Your task to perform on an android device: turn pop-ups off in chrome Image 0: 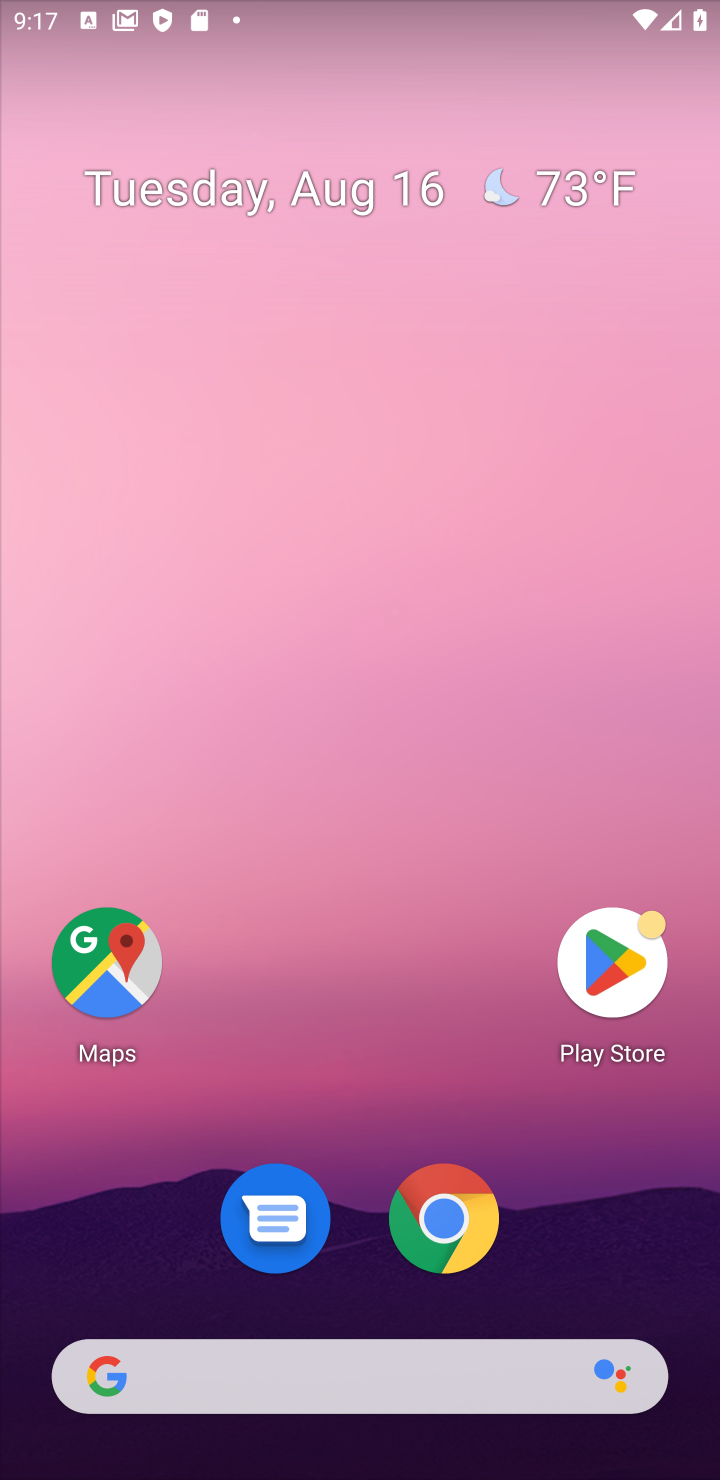
Step 0: click (442, 1224)
Your task to perform on an android device: turn pop-ups off in chrome Image 1: 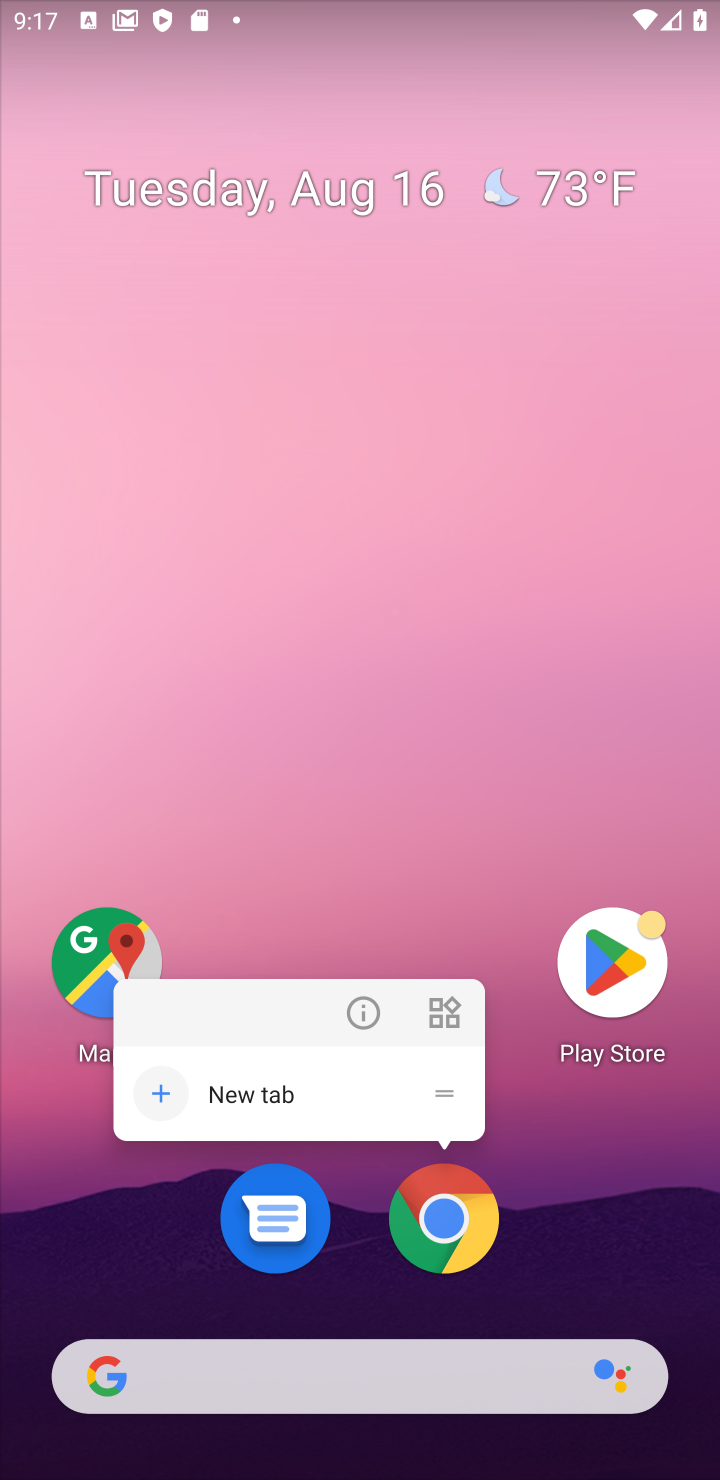
Step 1: click (442, 1224)
Your task to perform on an android device: turn pop-ups off in chrome Image 2: 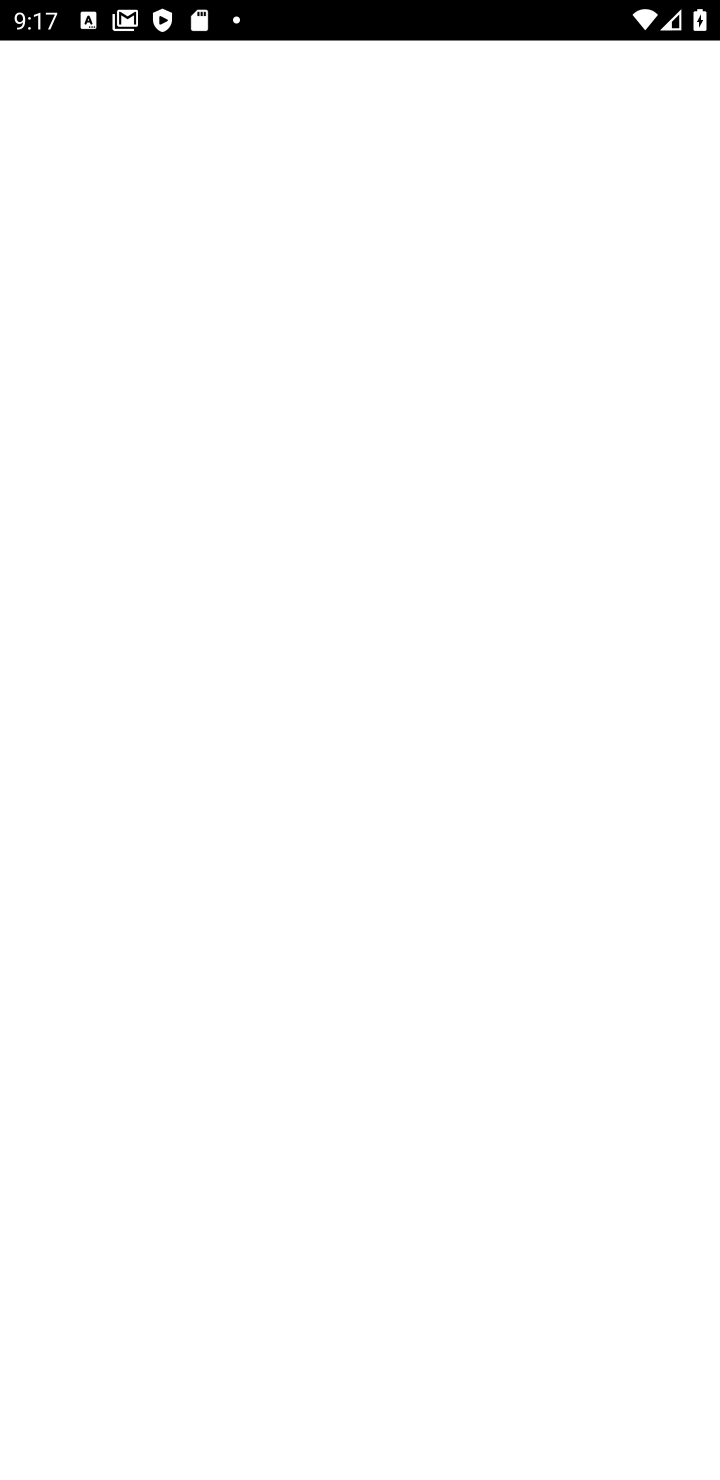
Step 2: click (442, 1224)
Your task to perform on an android device: turn pop-ups off in chrome Image 3: 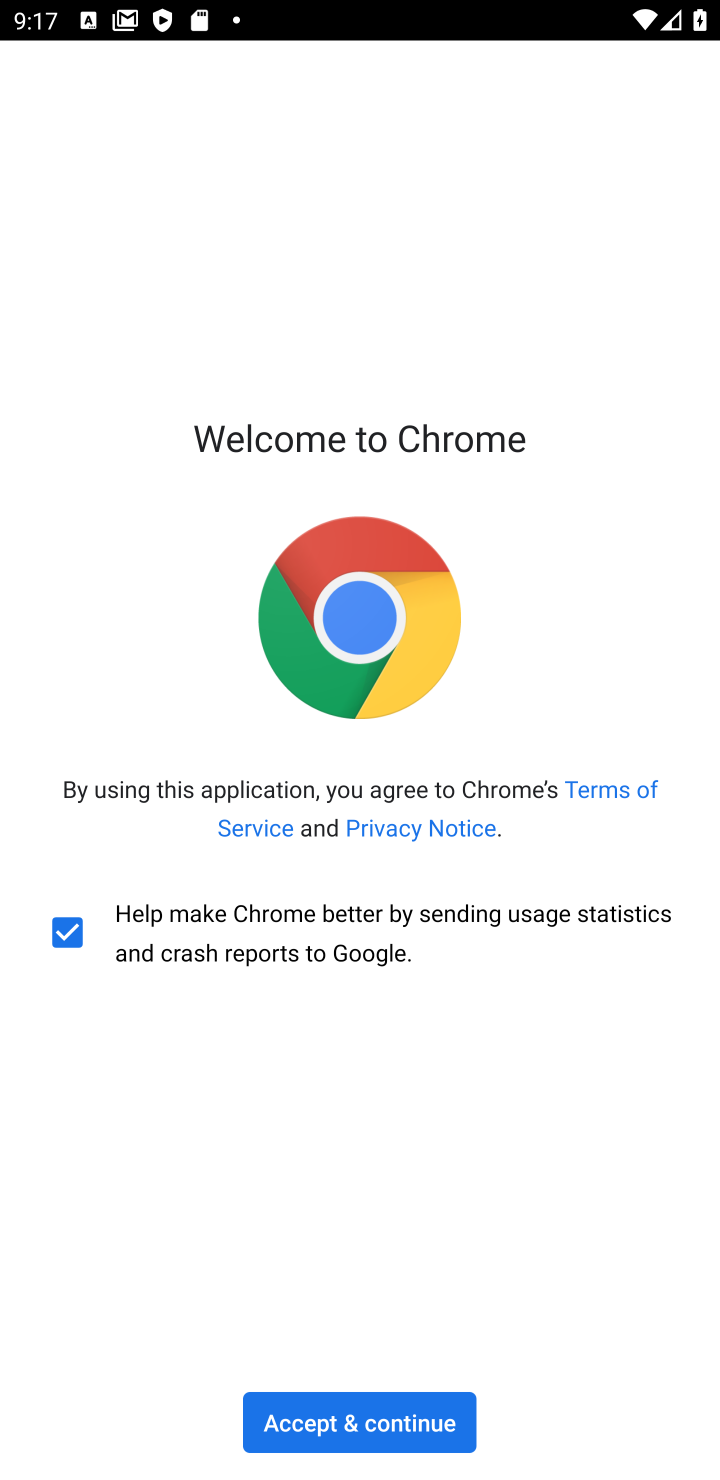
Step 3: click (374, 1434)
Your task to perform on an android device: turn pop-ups off in chrome Image 4: 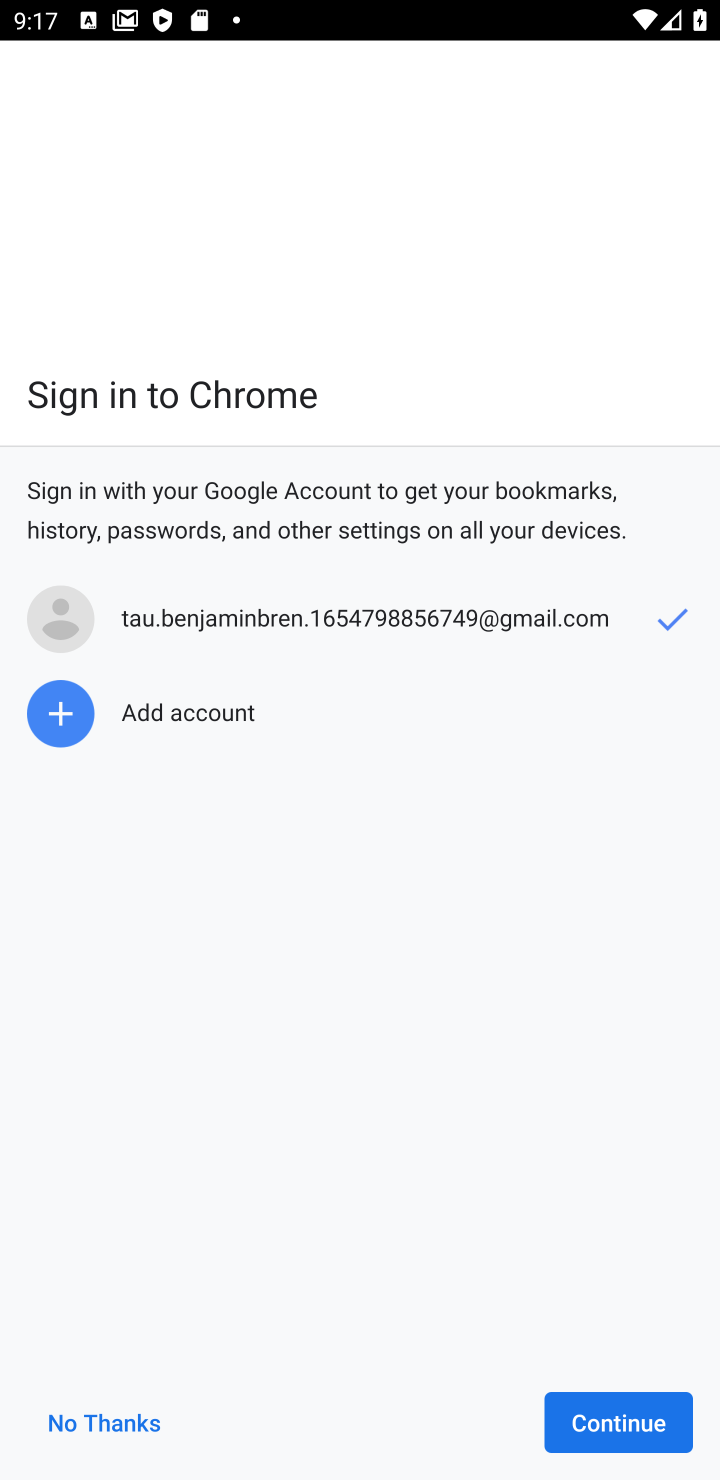
Step 4: click (638, 1404)
Your task to perform on an android device: turn pop-ups off in chrome Image 5: 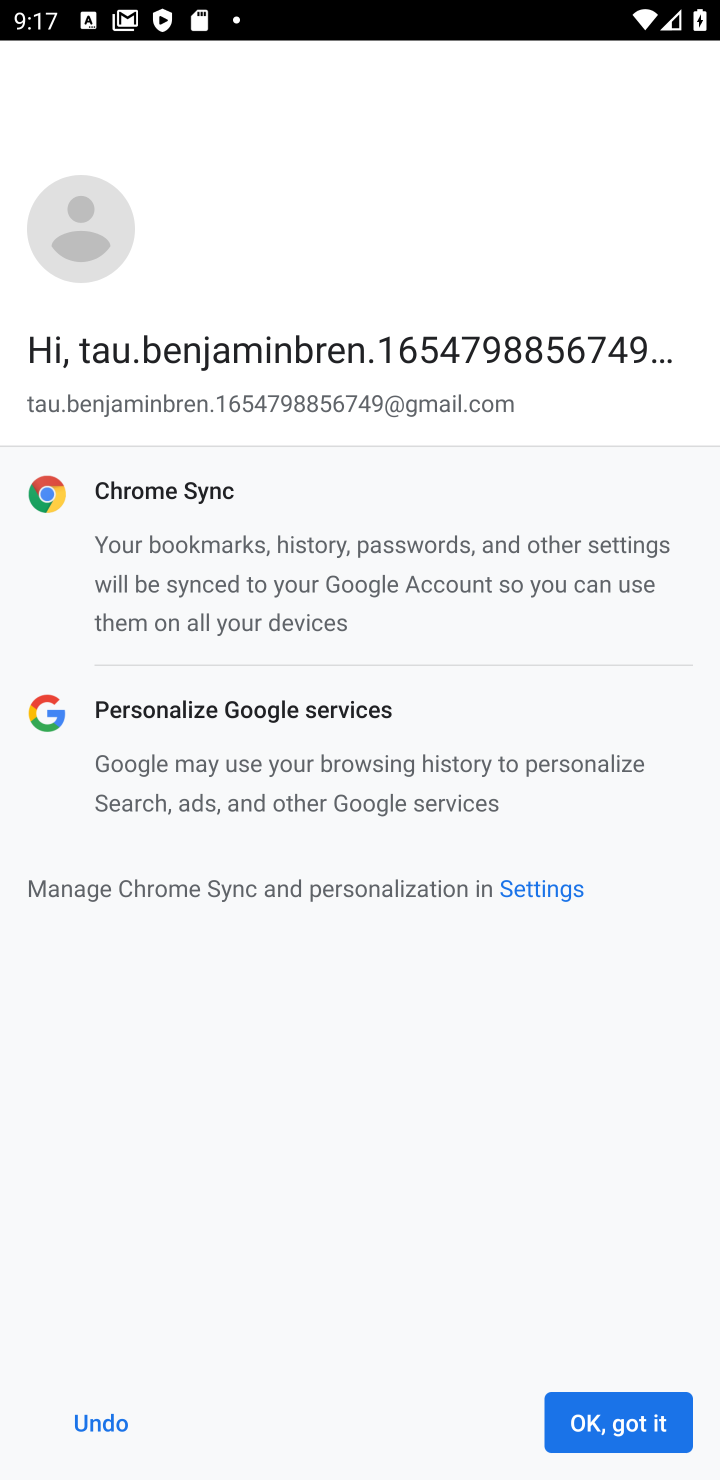
Step 5: click (638, 1404)
Your task to perform on an android device: turn pop-ups off in chrome Image 6: 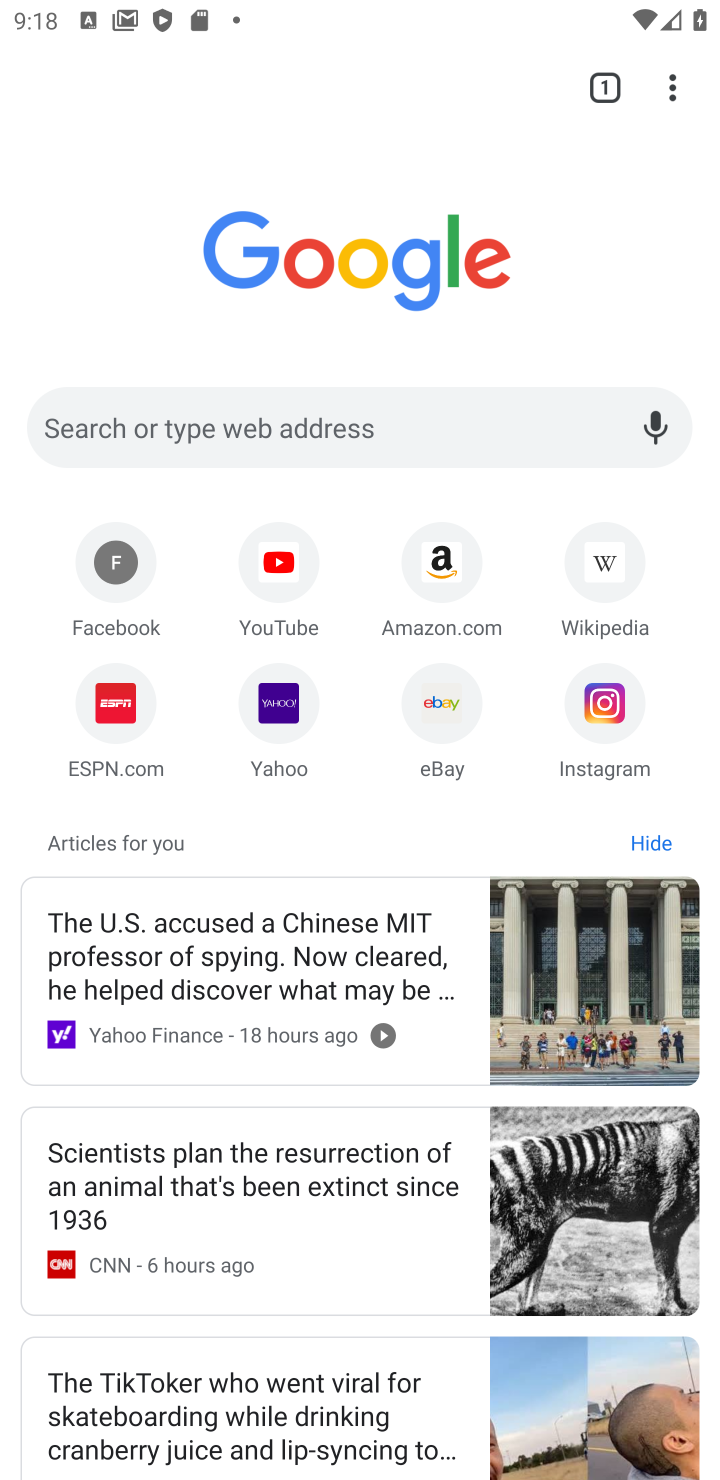
Step 6: click (685, 100)
Your task to perform on an android device: turn pop-ups off in chrome Image 7: 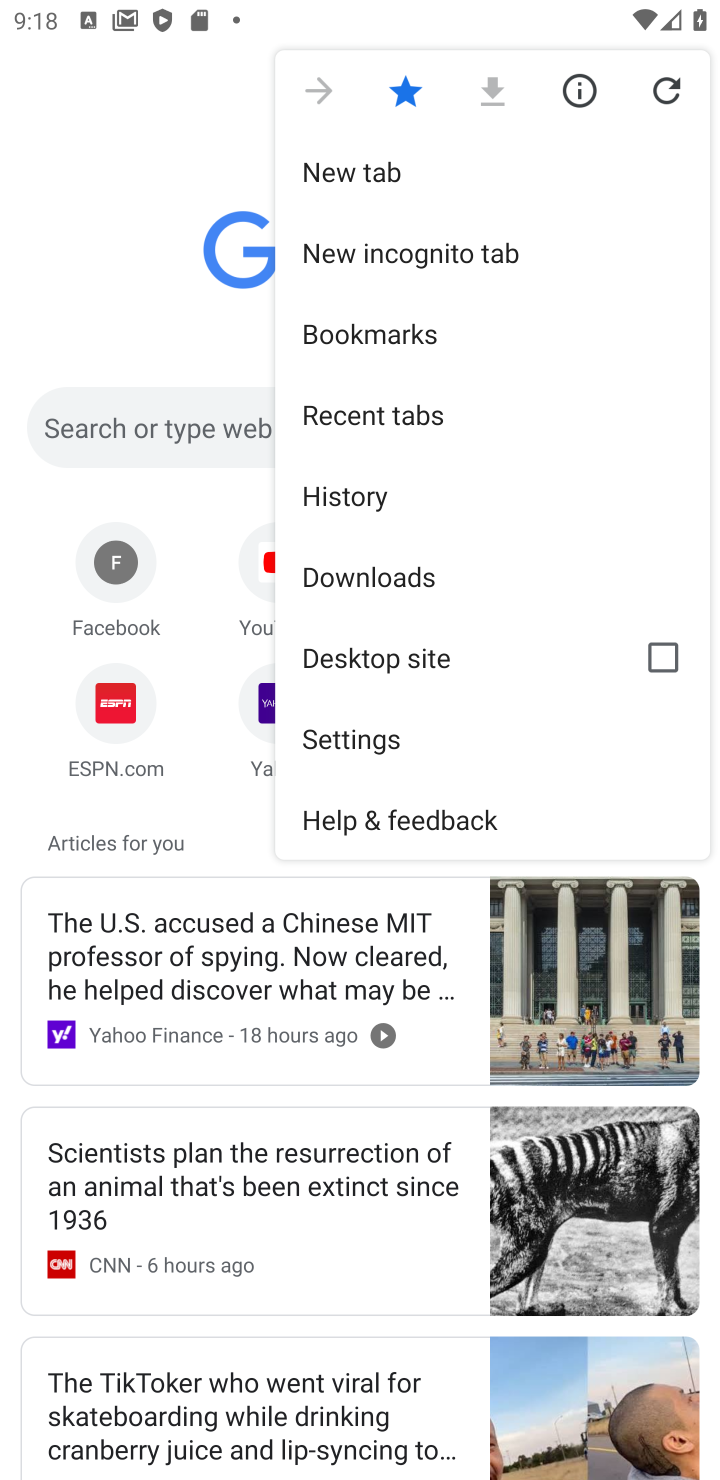
Step 7: click (416, 742)
Your task to perform on an android device: turn pop-ups off in chrome Image 8: 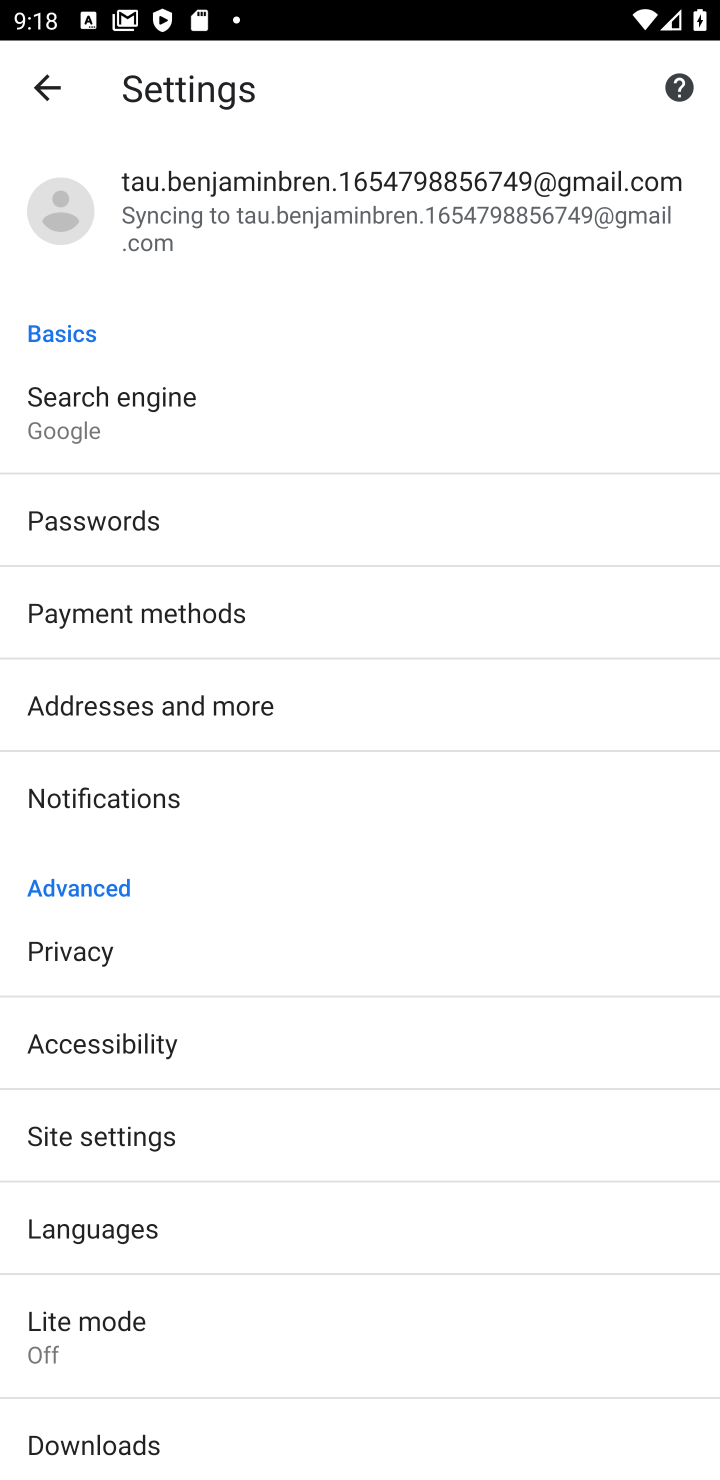
Step 8: click (211, 1147)
Your task to perform on an android device: turn pop-ups off in chrome Image 9: 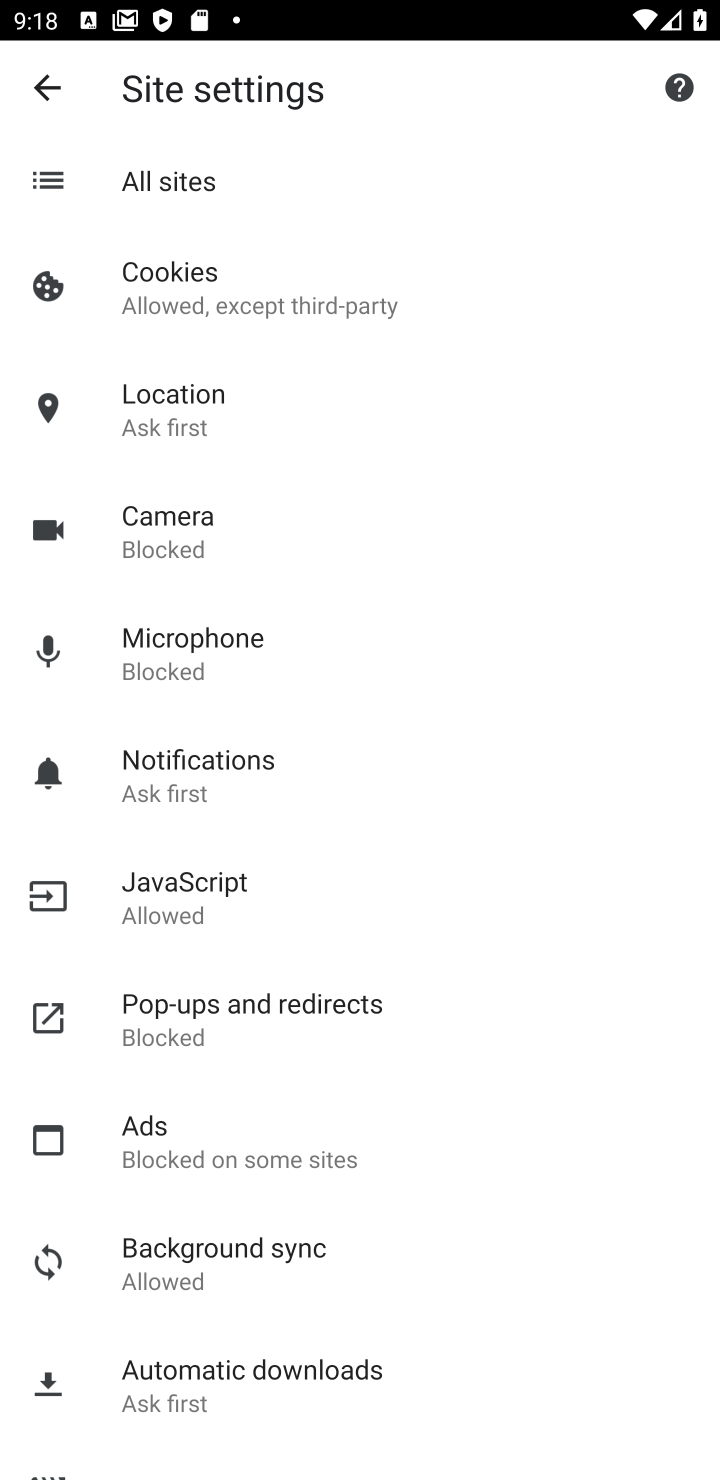
Step 9: click (284, 998)
Your task to perform on an android device: turn pop-ups off in chrome Image 10: 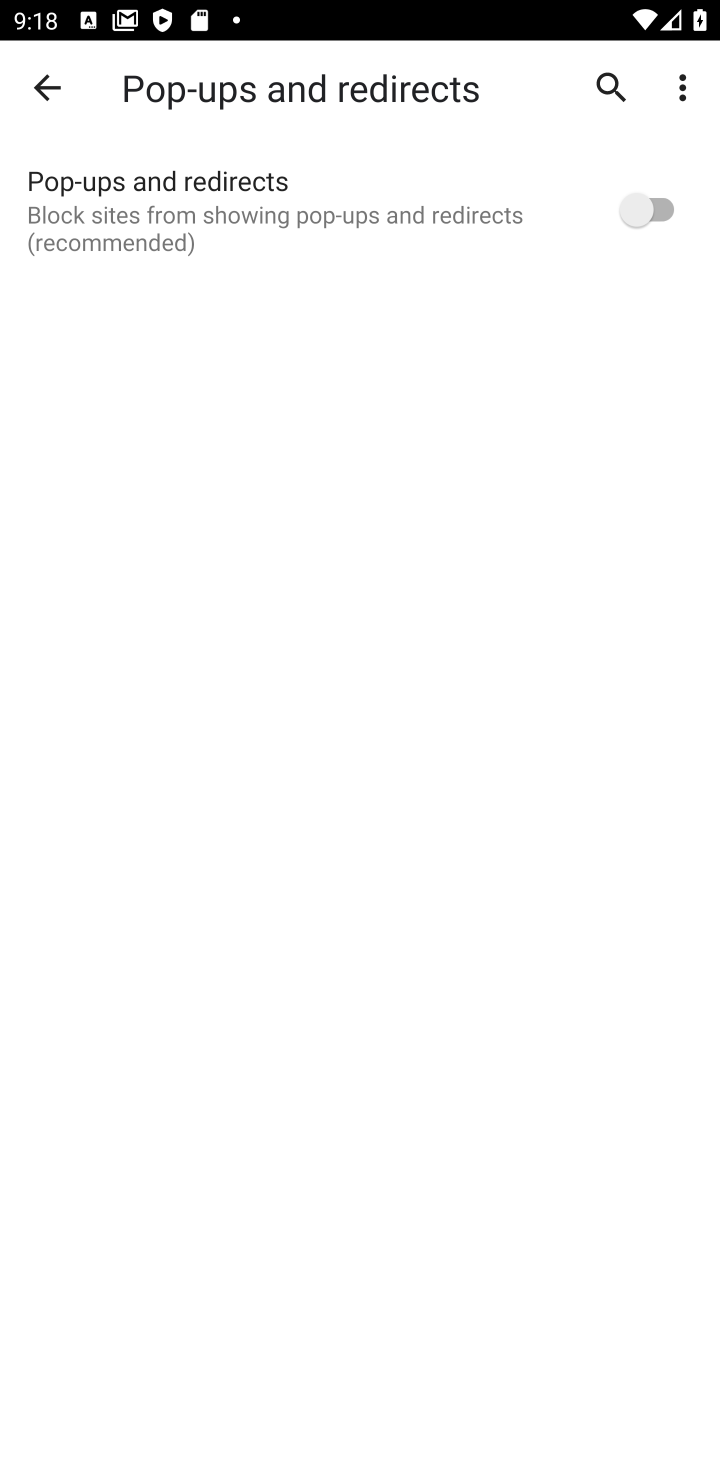
Step 10: task complete